Your task to perform on an android device: Go to internet settings Image 0: 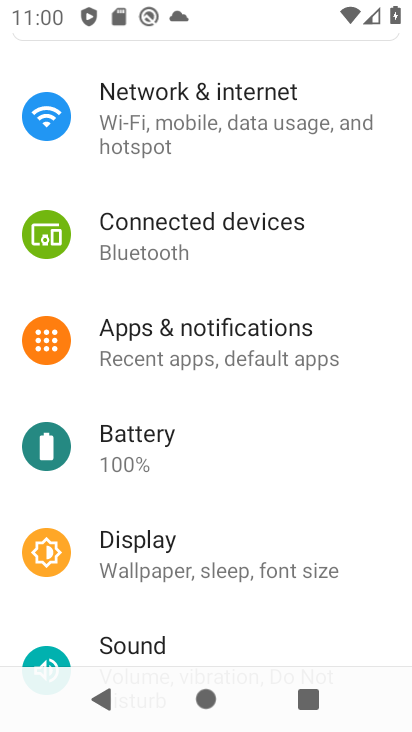
Step 0: click (215, 138)
Your task to perform on an android device: Go to internet settings Image 1: 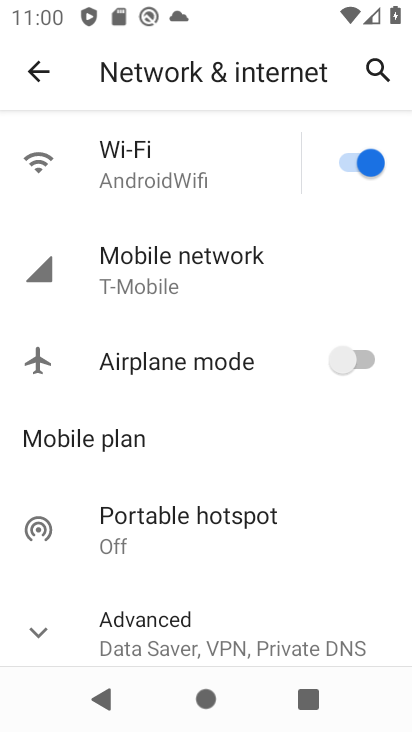
Step 1: task complete